Your task to perform on an android device: Open Reddit.com Image 0: 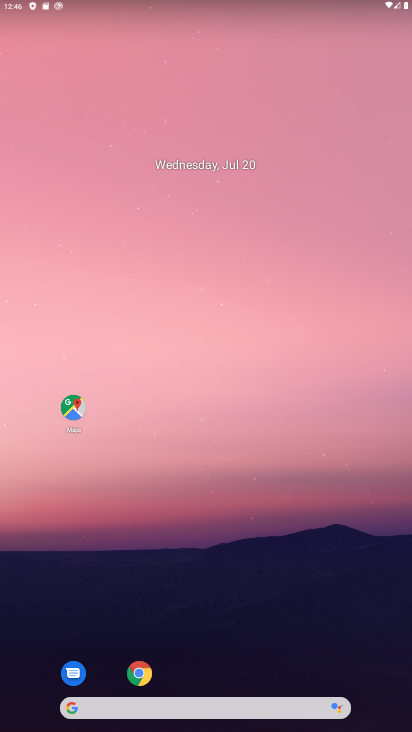
Step 0: click (143, 711)
Your task to perform on an android device: Open Reddit.com Image 1: 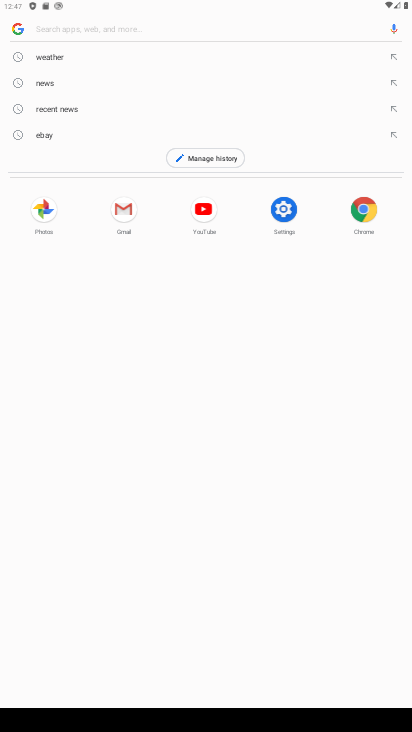
Step 1: type "reddit"
Your task to perform on an android device: Open Reddit.com Image 2: 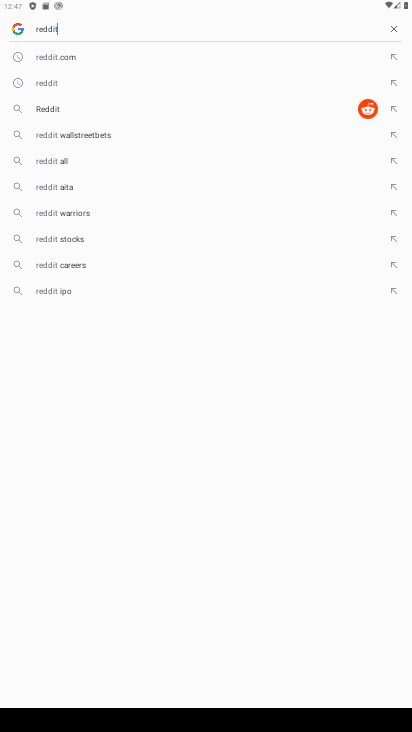
Step 2: click (83, 47)
Your task to perform on an android device: Open Reddit.com Image 3: 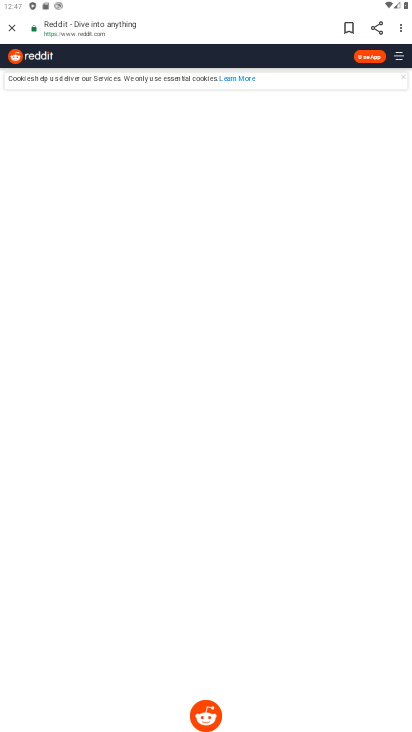
Step 3: task complete